Your task to perform on an android device: Open Google Chrome and open the bookmarks view Image 0: 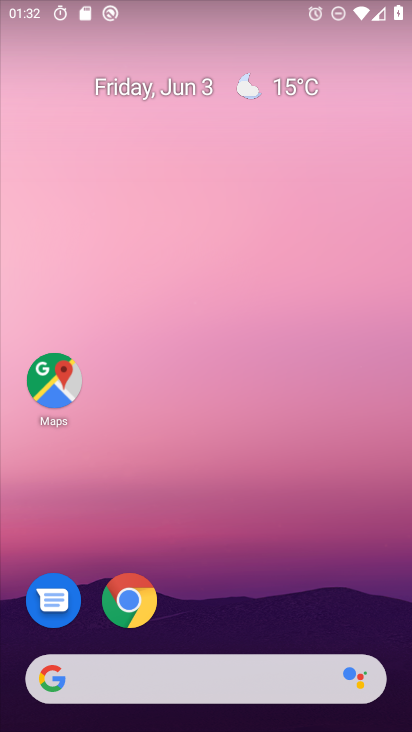
Step 0: click (135, 595)
Your task to perform on an android device: Open Google Chrome and open the bookmarks view Image 1: 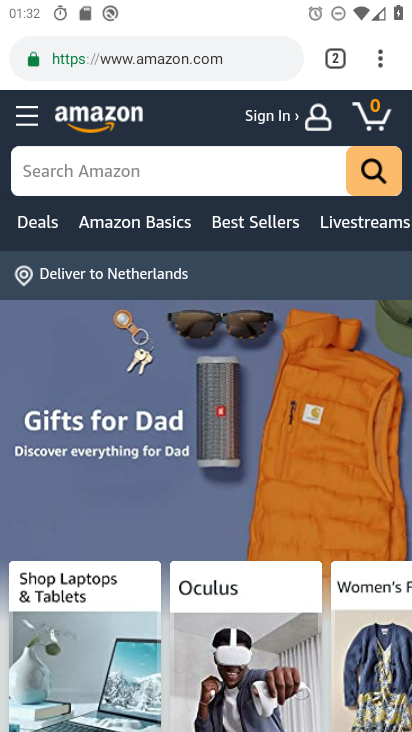
Step 1: click (376, 63)
Your task to perform on an android device: Open Google Chrome and open the bookmarks view Image 2: 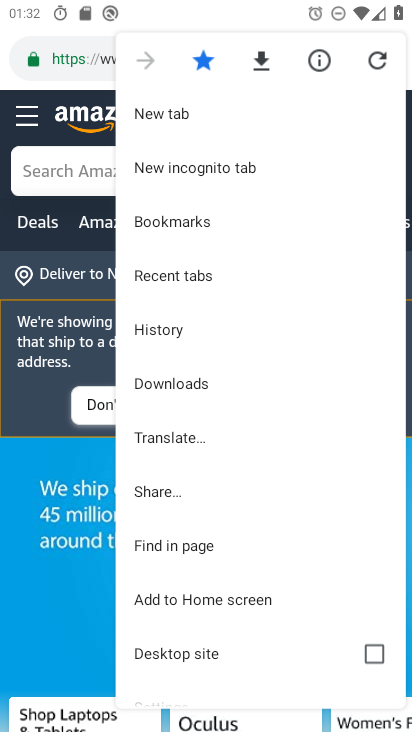
Step 2: click (209, 215)
Your task to perform on an android device: Open Google Chrome and open the bookmarks view Image 3: 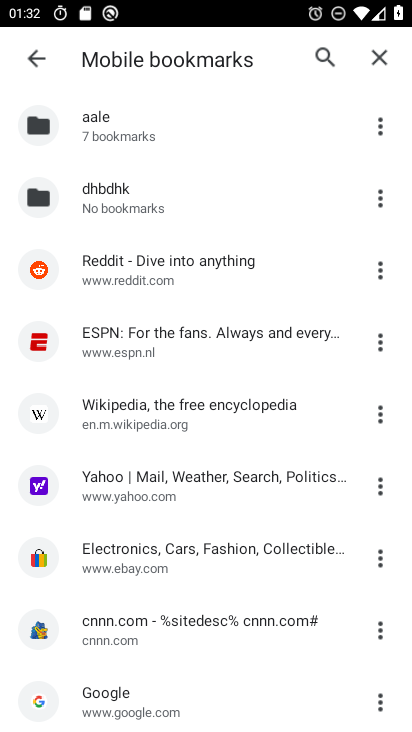
Step 3: click (103, 422)
Your task to perform on an android device: Open Google Chrome and open the bookmarks view Image 4: 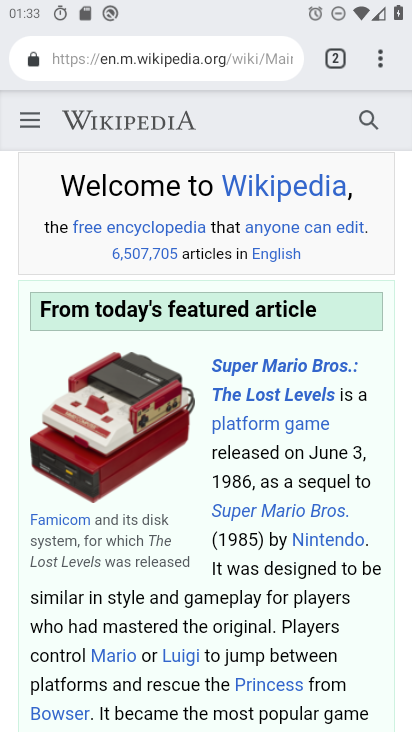
Step 4: task complete